Your task to perform on an android device: Search for Mexican restaurants on Maps Image 0: 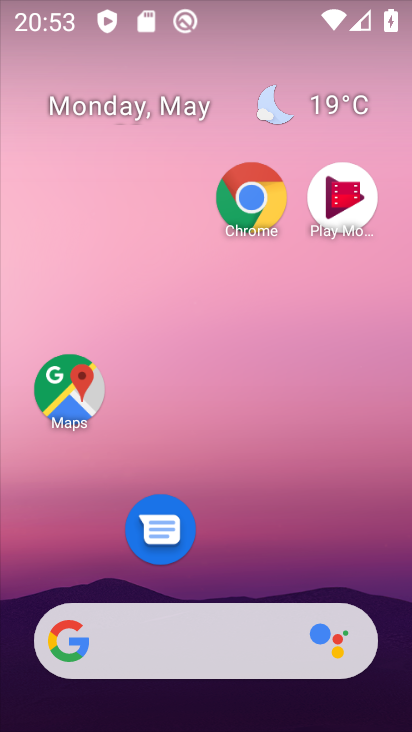
Step 0: drag from (216, 581) to (186, 12)
Your task to perform on an android device: Search for Mexican restaurants on Maps Image 1: 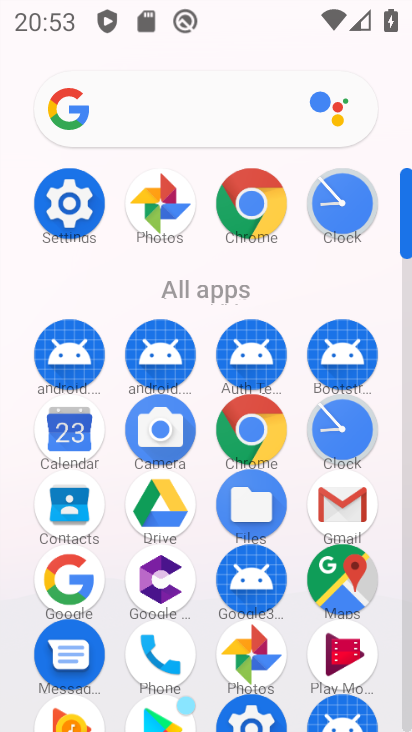
Step 1: click (339, 447)
Your task to perform on an android device: Search for Mexican restaurants on Maps Image 2: 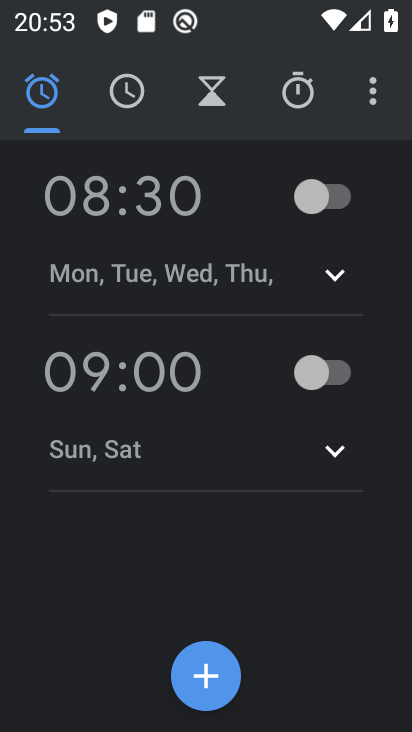
Step 2: click (350, 206)
Your task to perform on an android device: Search for Mexican restaurants on Maps Image 3: 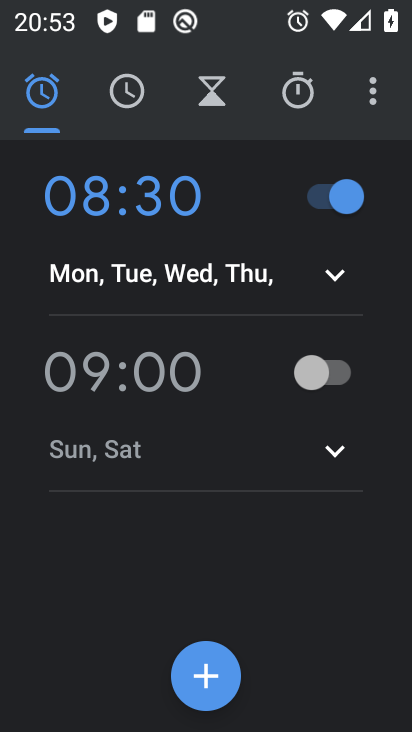
Step 3: press home button
Your task to perform on an android device: Search for Mexican restaurants on Maps Image 4: 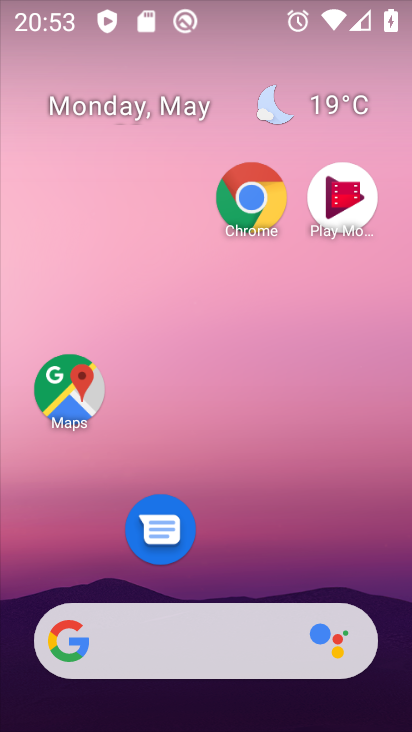
Step 4: click (76, 393)
Your task to perform on an android device: Search for Mexican restaurants on Maps Image 5: 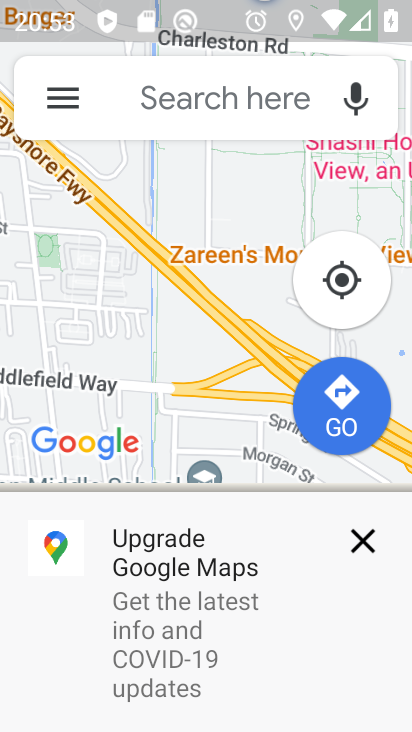
Step 5: click (355, 545)
Your task to perform on an android device: Search for Mexican restaurants on Maps Image 6: 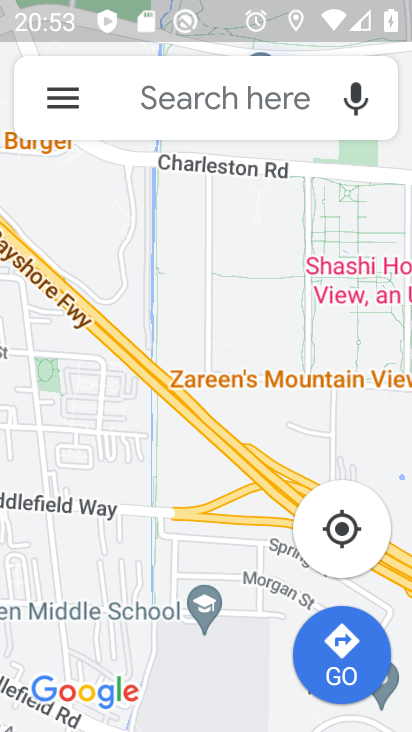
Step 6: click (125, 94)
Your task to perform on an android device: Search for Mexican restaurants on Maps Image 7: 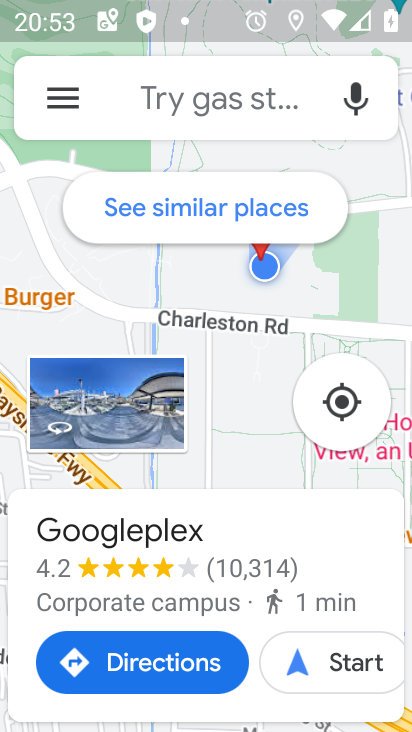
Step 7: click (213, 102)
Your task to perform on an android device: Search for Mexican restaurants on Maps Image 8: 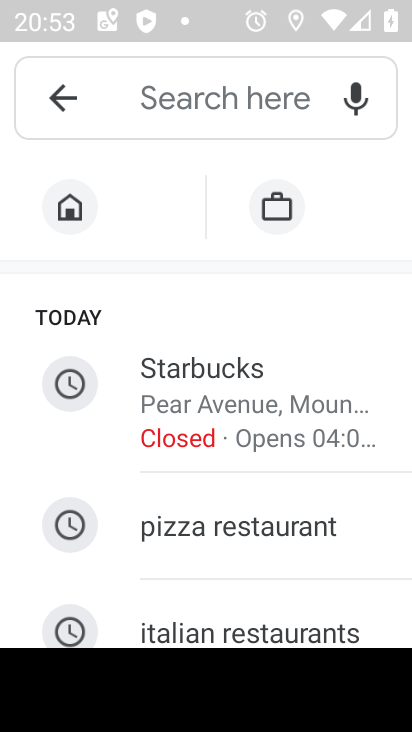
Step 8: click (208, 654)
Your task to perform on an android device: Search for Mexican restaurants on Maps Image 9: 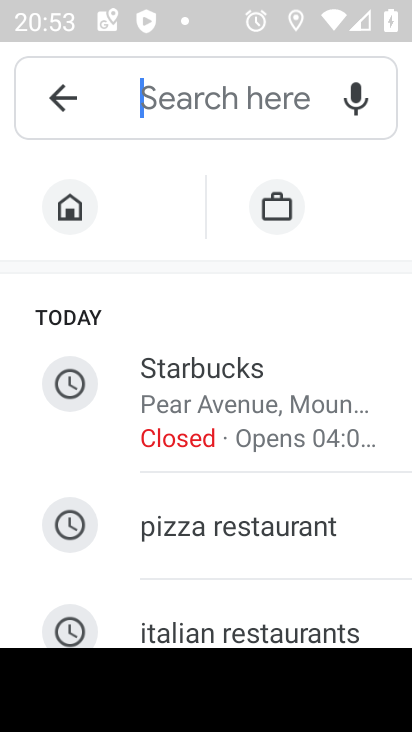
Step 9: drag from (211, 588) to (222, 301)
Your task to perform on an android device: Search for Mexican restaurants on Maps Image 10: 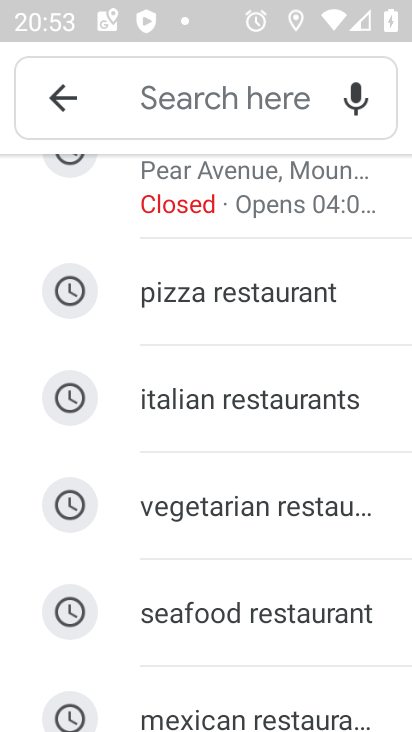
Step 10: click (222, 715)
Your task to perform on an android device: Search for Mexican restaurants on Maps Image 11: 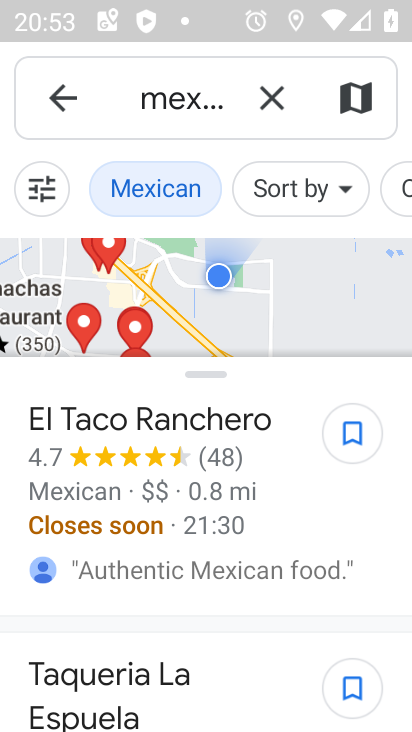
Step 11: task complete